Your task to perform on an android device: open a bookmark in the chrome app Image 0: 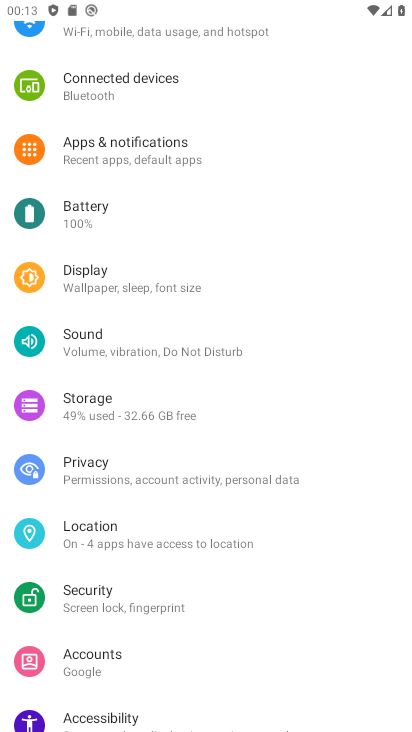
Step 0: press home button
Your task to perform on an android device: open a bookmark in the chrome app Image 1: 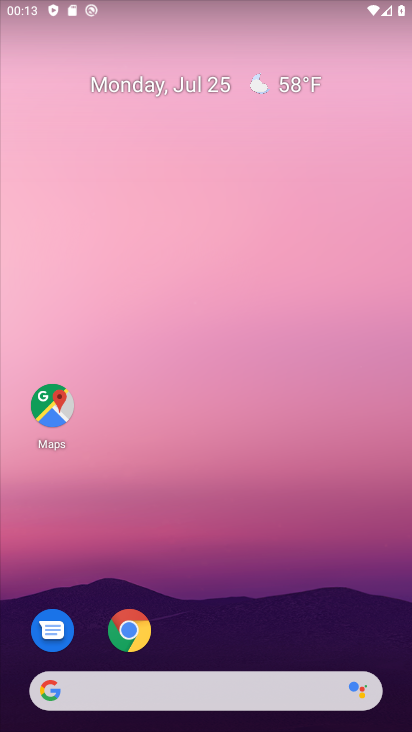
Step 1: drag from (275, 570) to (180, 172)
Your task to perform on an android device: open a bookmark in the chrome app Image 2: 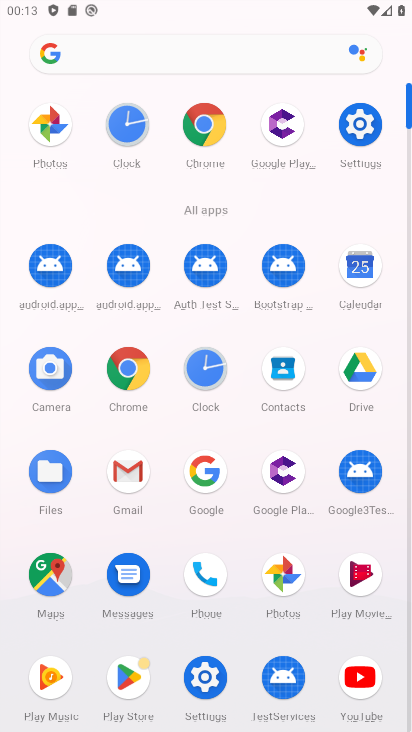
Step 2: click (206, 145)
Your task to perform on an android device: open a bookmark in the chrome app Image 3: 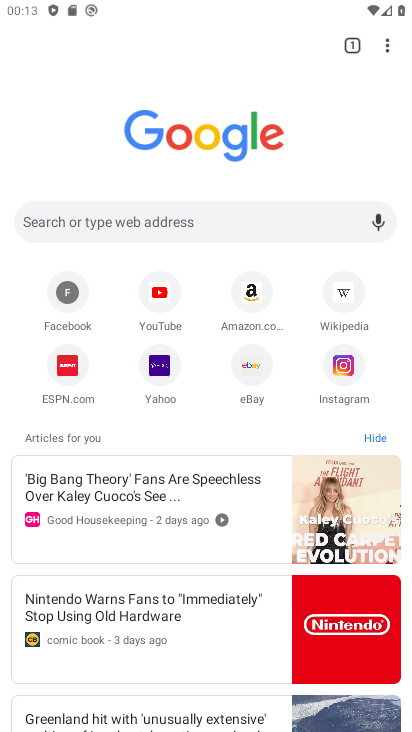
Step 3: click (392, 52)
Your task to perform on an android device: open a bookmark in the chrome app Image 4: 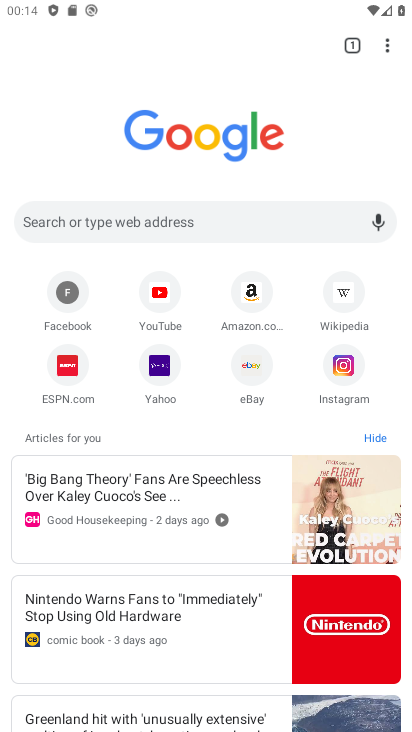
Step 4: drag from (395, 48) to (251, 182)
Your task to perform on an android device: open a bookmark in the chrome app Image 5: 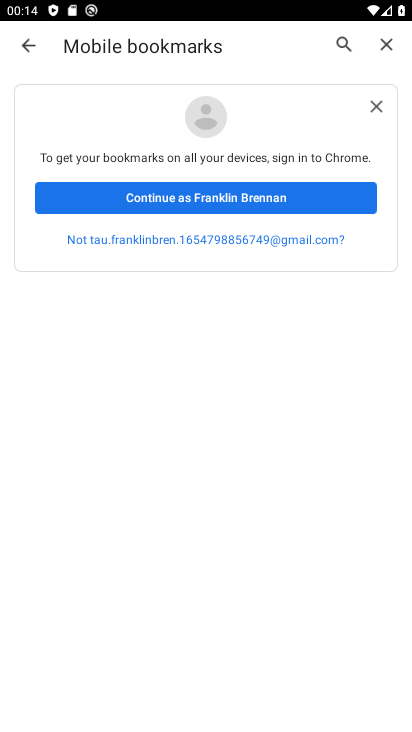
Step 5: click (231, 191)
Your task to perform on an android device: open a bookmark in the chrome app Image 6: 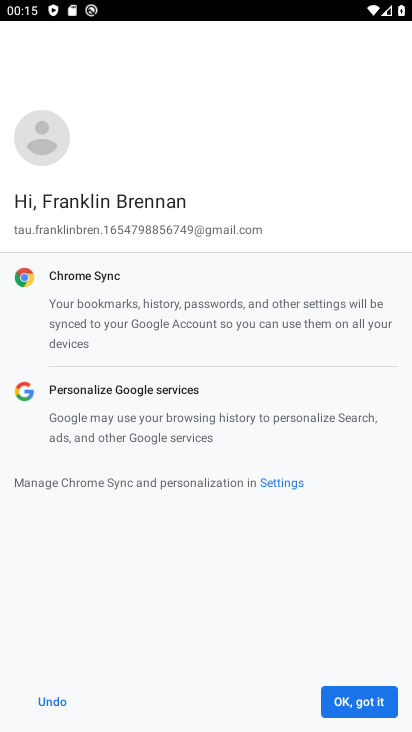
Step 6: click (385, 700)
Your task to perform on an android device: open a bookmark in the chrome app Image 7: 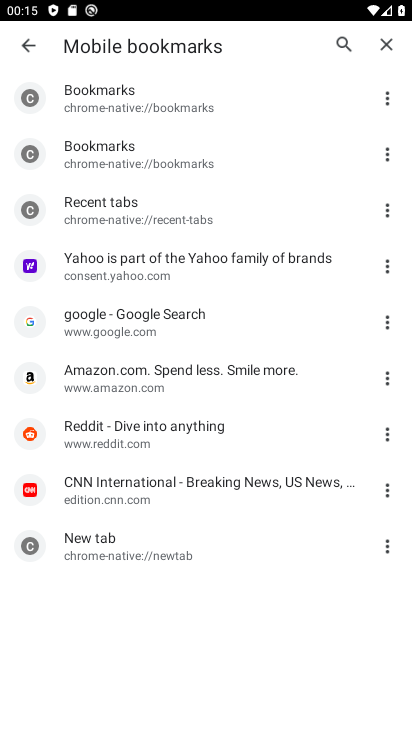
Step 7: task complete